Your task to perform on an android device: snooze an email in the gmail app Image 0: 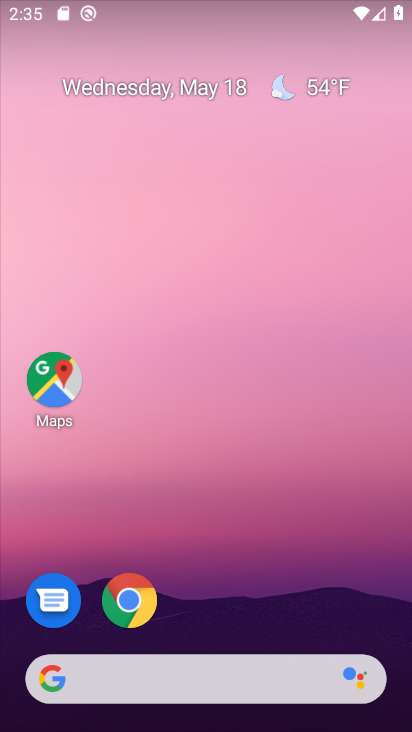
Step 0: drag from (245, 626) to (294, 176)
Your task to perform on an android device: snooze an email in the gmail app Image 1: 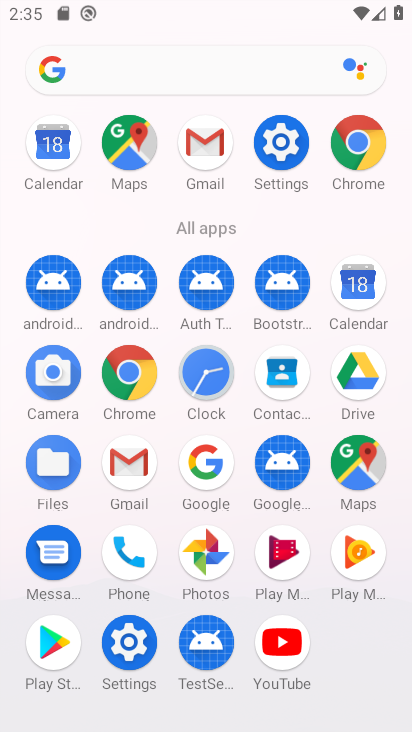
Step 1: click (138, 470)
Your task to perform on an android device: snooze an email in the gmail app Image 2: 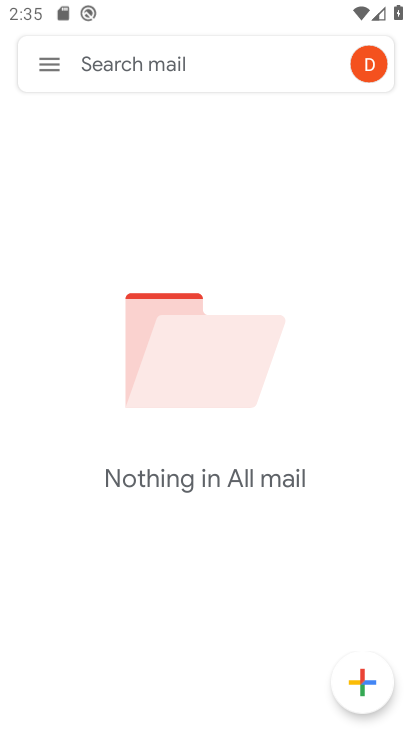
Step 2: click (57, 65)
Your task to perform on an android device: snooze an email in the gmail app Image 3: 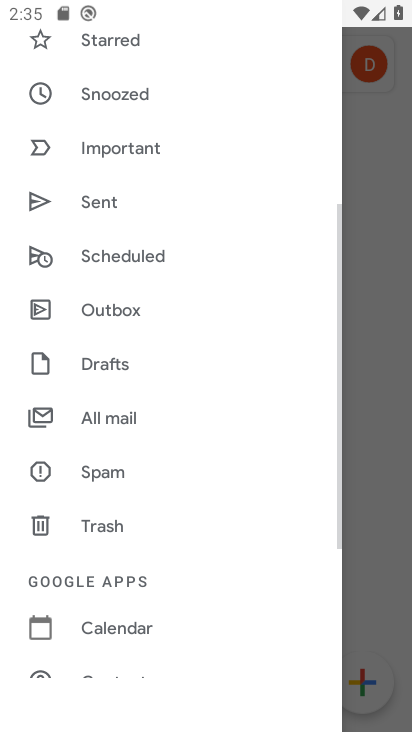
Step 3: click (375, 316)
Your task to perform on an android device: snooze an email in the gmail app Image 4: 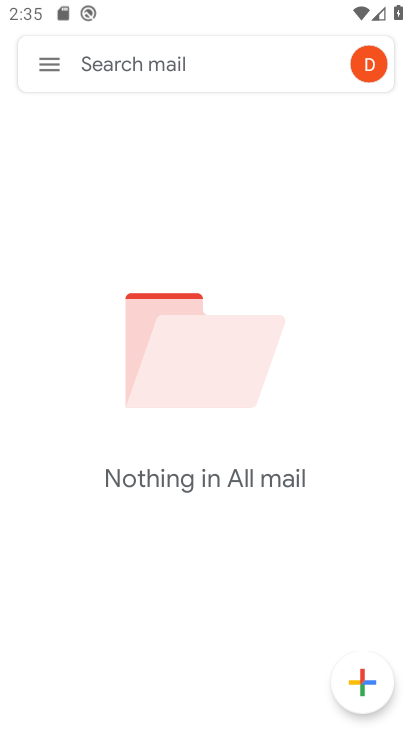
Step 4: task complete